Your task to perform on an android device: check out phone information Image 0: 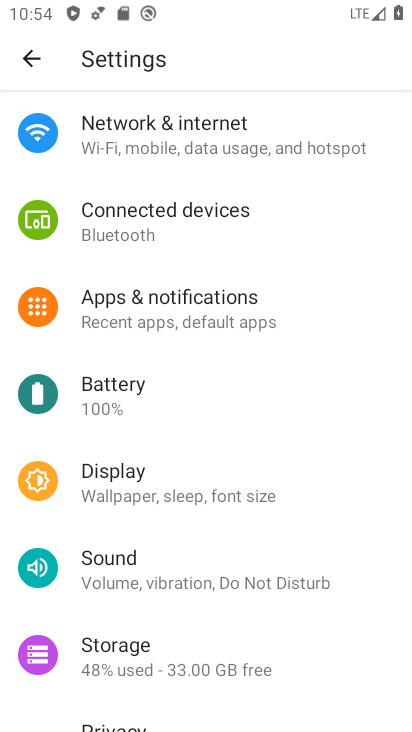
Step 0: drag from (268, 564) to (266, 66)
Your task to perform on an android device: check out phone information Image 1: 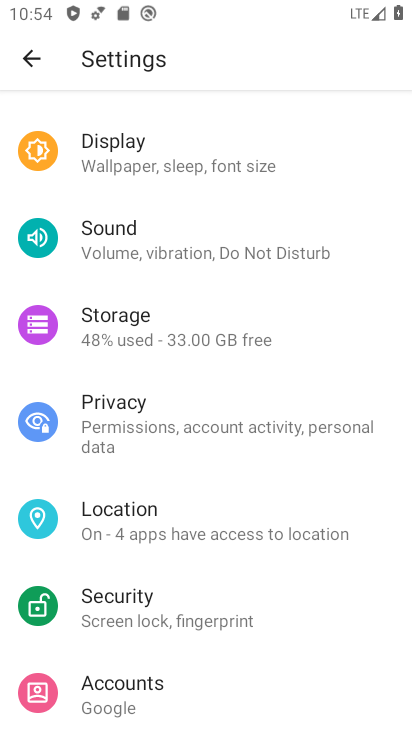
Step 1: press home button
Your task to perform on an android device: check out phone information Image 2: 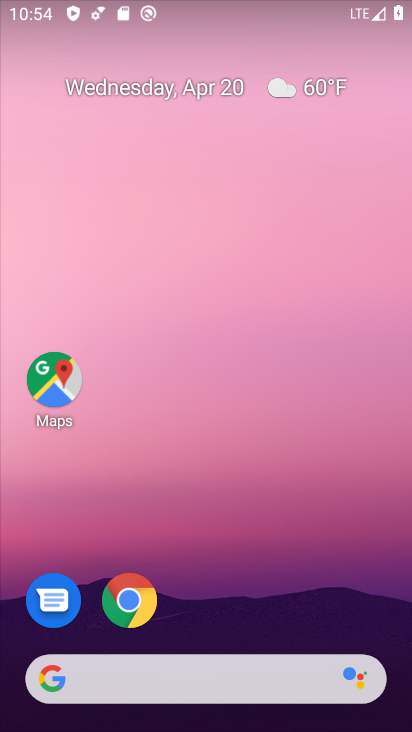
Step 2: drag from (283, 554) to (302, 88)
Your task to perform on an android device: check out phone information Image 3: 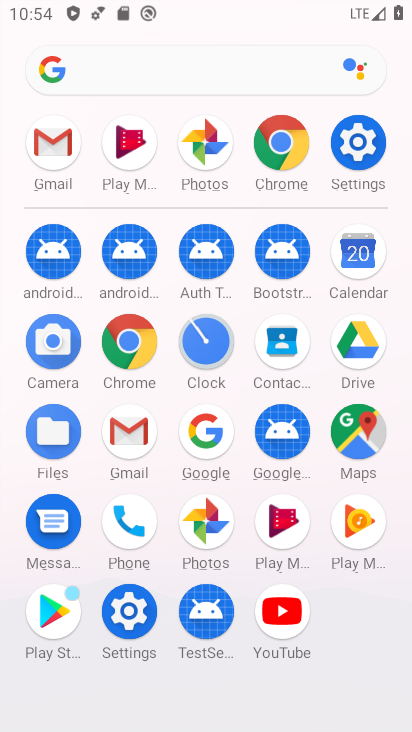
Step 3: drag from (135, 521) to (165, 445)
Your task to perform on an android device: check out phone information Image 4: 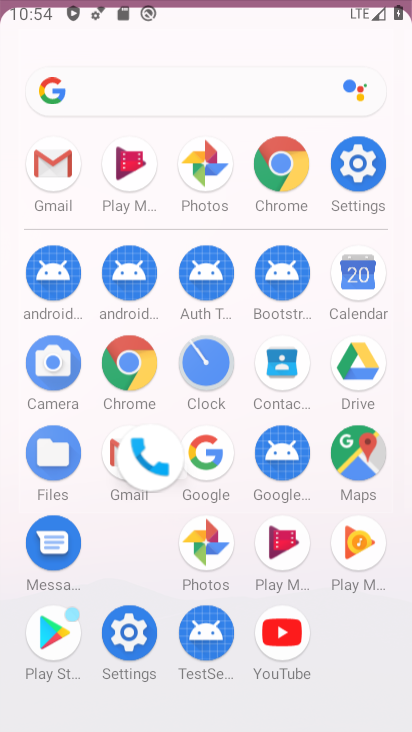
Step 4: click (168, 447)
Your task to perform on an android device: check out phone information Image 5: 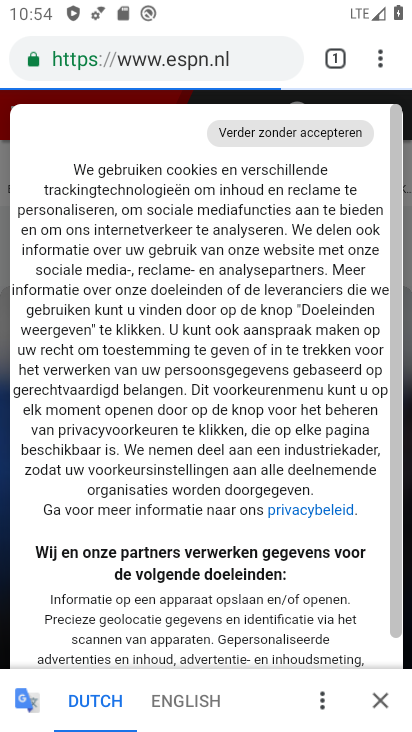
Step 5: press home button
Your task to perform on an android device: check out phone information Image 6: 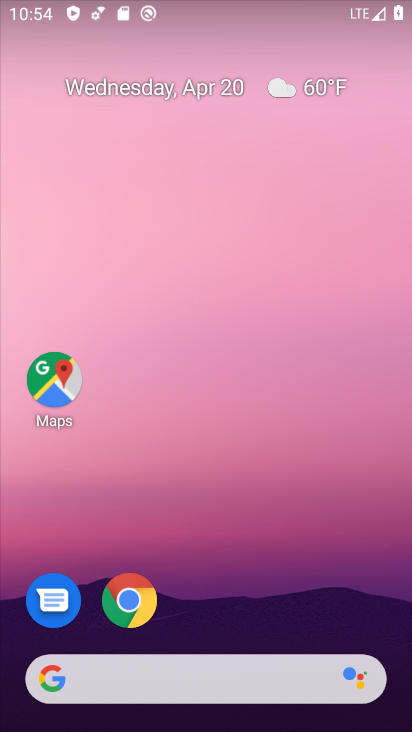
Step 6: drag from (242, 644) to (291, 135)
Your task to perform on an android device: check out phone information Image 7: 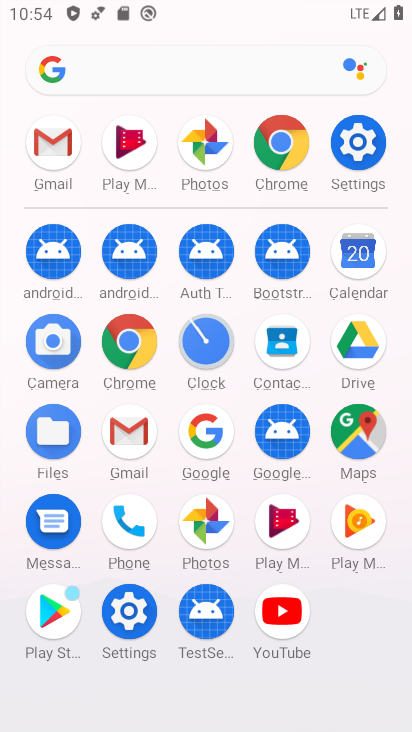
Step 7: click (133, 524)
Your task to perform on an android device: check out phone information Image 8: 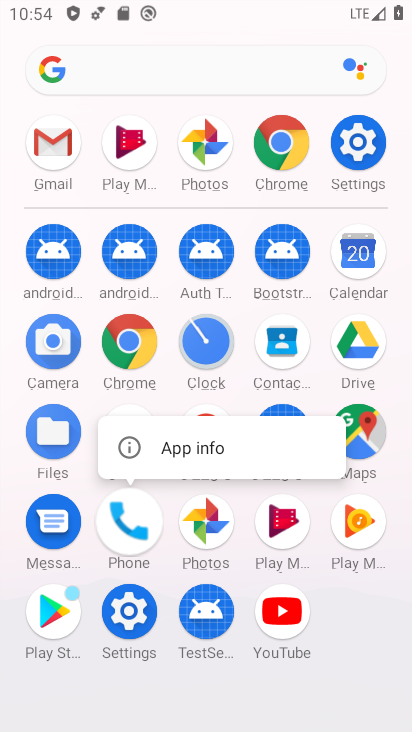
Step 8: click (230, 446)
Your task to perform on an android device: check out phone information Image 9: 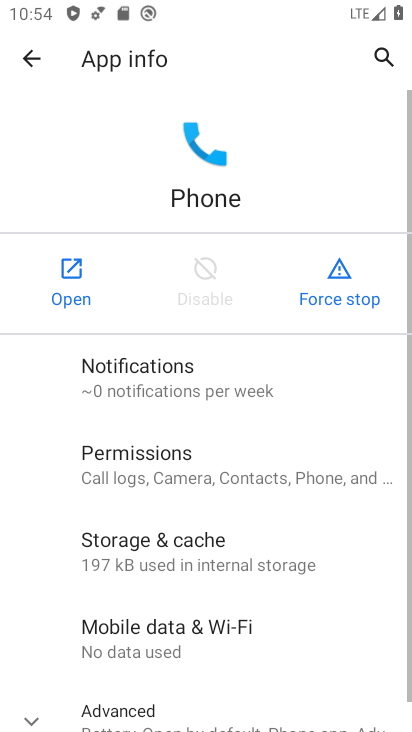
Step 9: drag from (267, 675) to (293, 123)
Your task to perform on an android device: check out phone information Image 10: 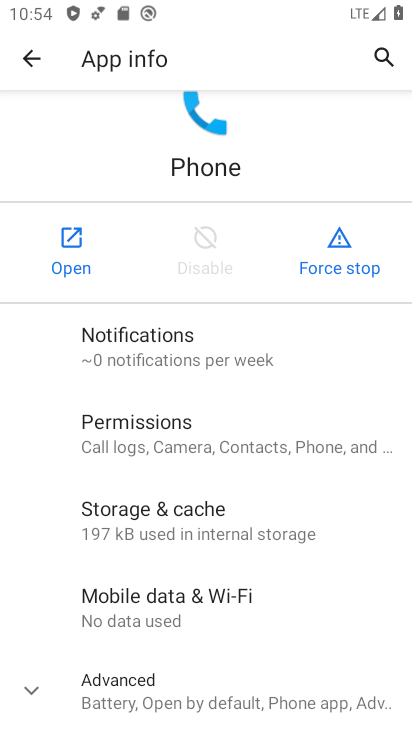
Step 10: drag from (161, 537) to (232, 183)
Your task to perform on an android device: check out phone information Image 11: 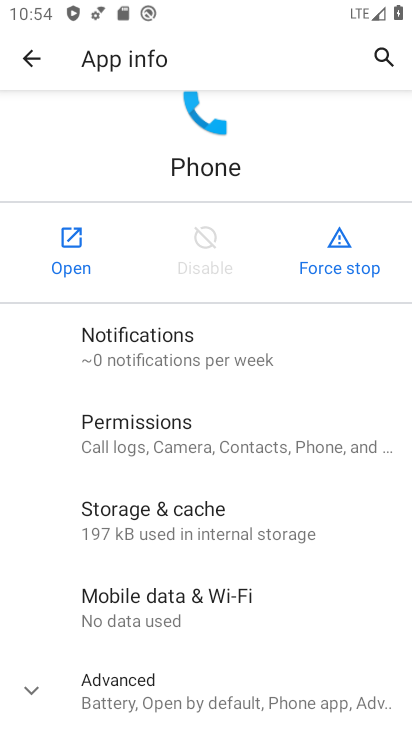
Step 11: click (136, 679)
Your task to perform on an android device: check out phone information Image 12: 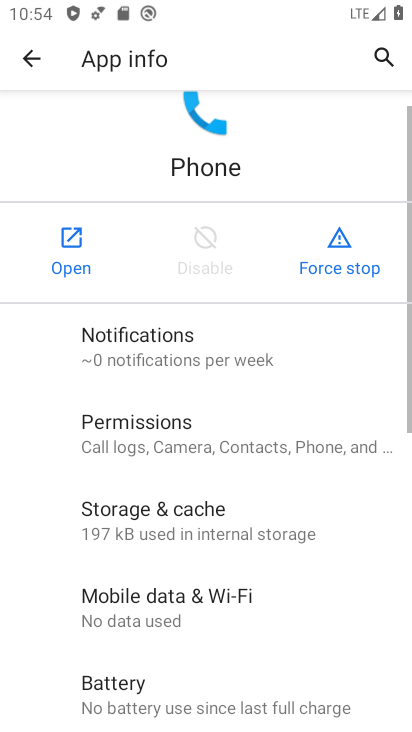
Step 12: task complete